Your task to perform on an android device: Do I have any events today? Image 0: 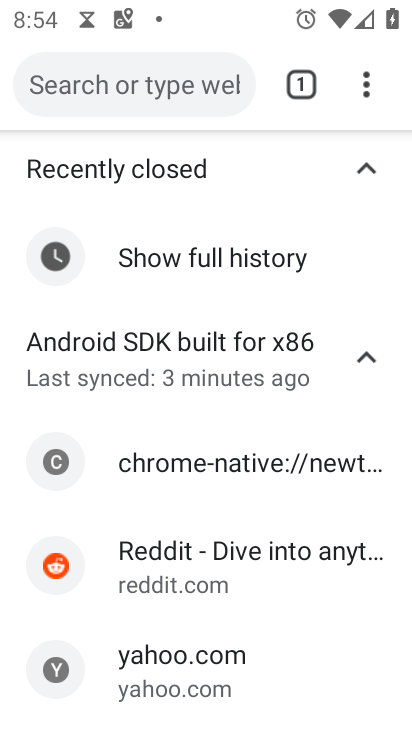
Step 0: press home button
Your task to perform on an android device: Do I have any events today? Image 1: 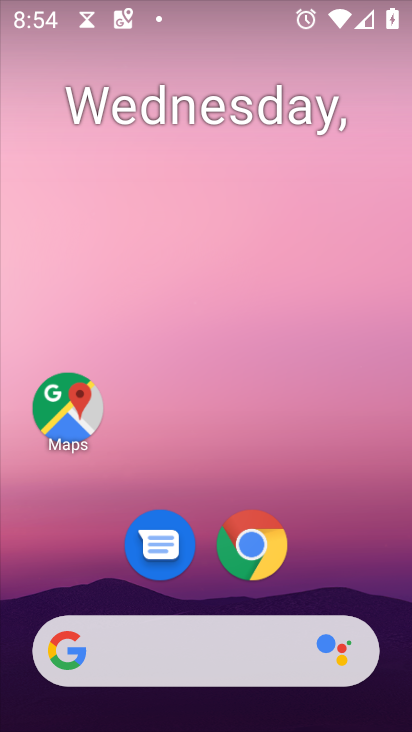
Step 1: drag from (151, 662) to (268, 49)
Your task to perform on an android device: Do I have any events today? Image 2: 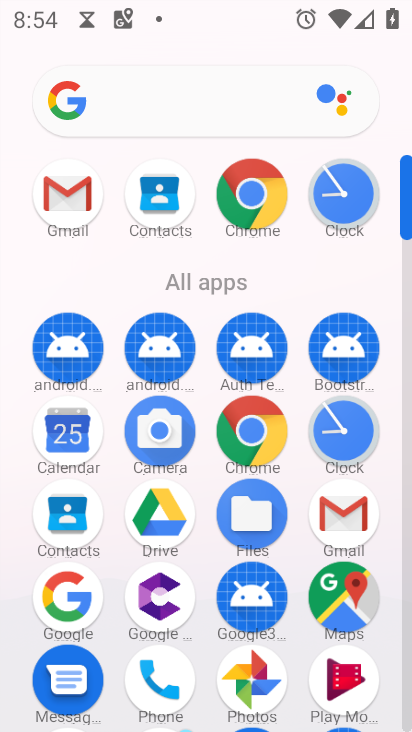
Step 2: click (58, 439)
Your task to perform on an android device: Do I have any events today? Image 3: 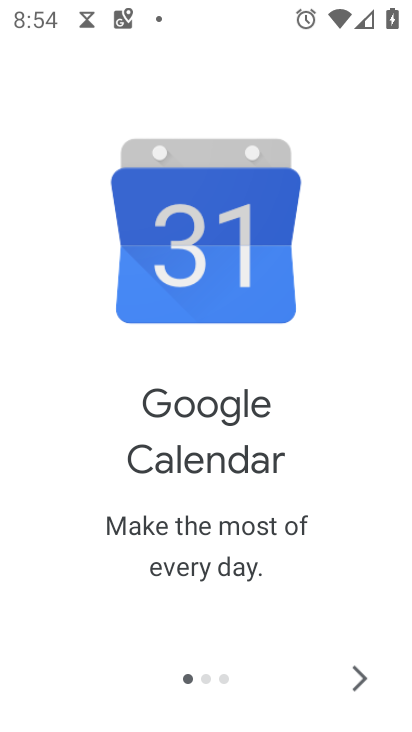
Step 3: click (353, 674)
Your task to perform on an android device: Do I have any events today? Image 4: 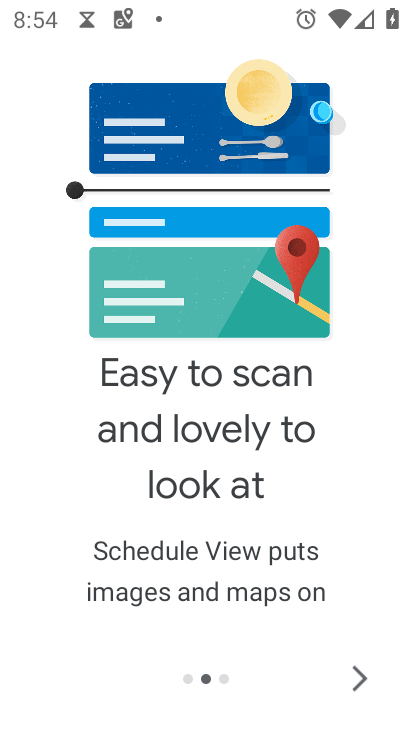
Step 4: click (353, 675)
Your task to perform on an android device: Do I have any events today? Image 5: 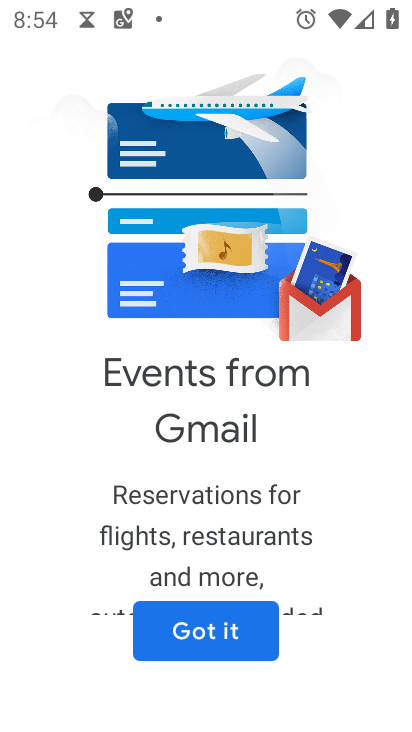
Step 5: click (199, 614)
Your task to perform on an android device: Do I have any events today? Image 6: 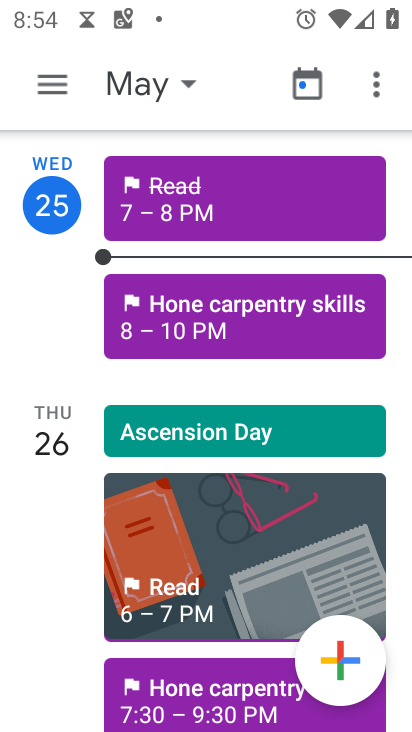
Step 6: click (134, 85)
Your task to perform on an android device: Do I have any events today? Image 7: 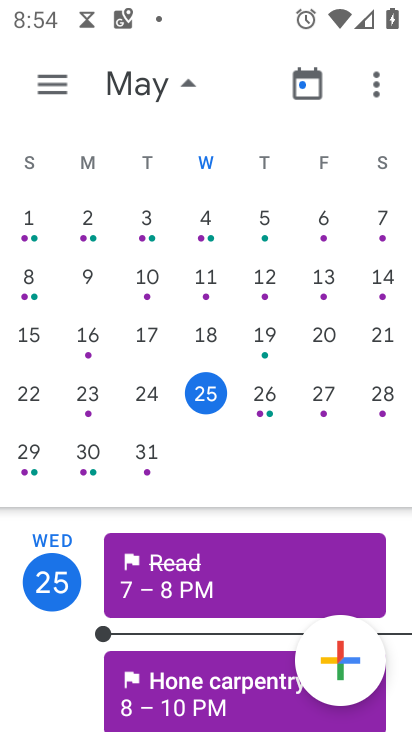
Step 7: click (201, 397)
Your task to perform on an android device: Do I have any events today? Image 8: 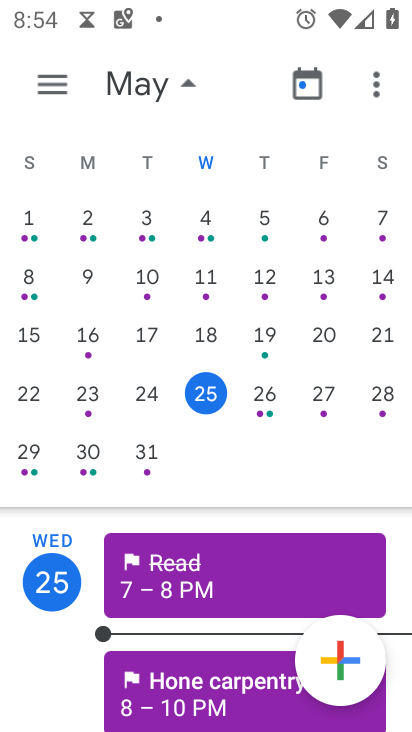
Step 8: click (52, 89)
Your task to perform on an android device: Do I have any events today? Image 9: 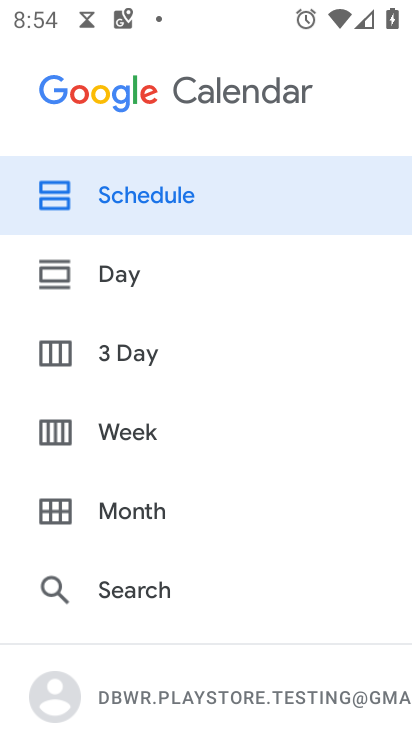
Step 9: click (130, 264)
Your task to perform on an android device: Do I have any events today? Image 10: 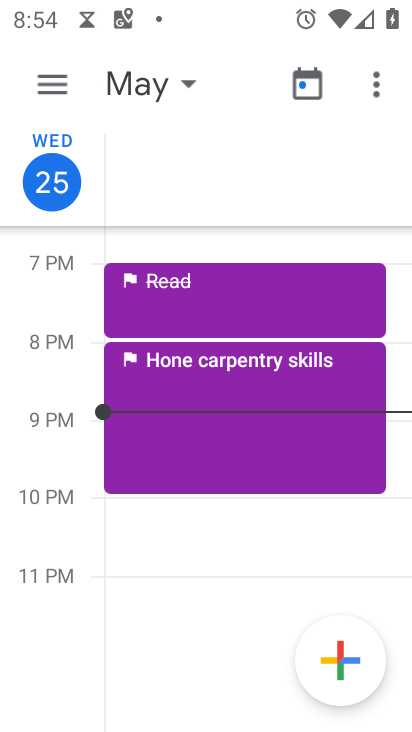
Step 10: click (49, 84)
Your task to perform on an android device: Do I have any events today? Image 11: 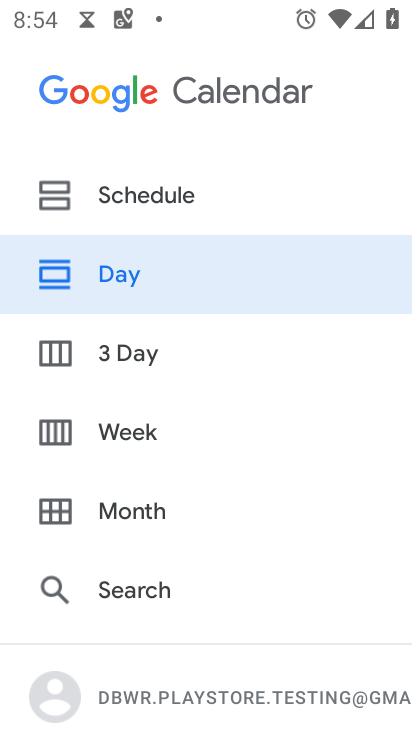
Step 11: click (124, 186)
Your task to perform on an android device: Do I have any events today? Image 12: 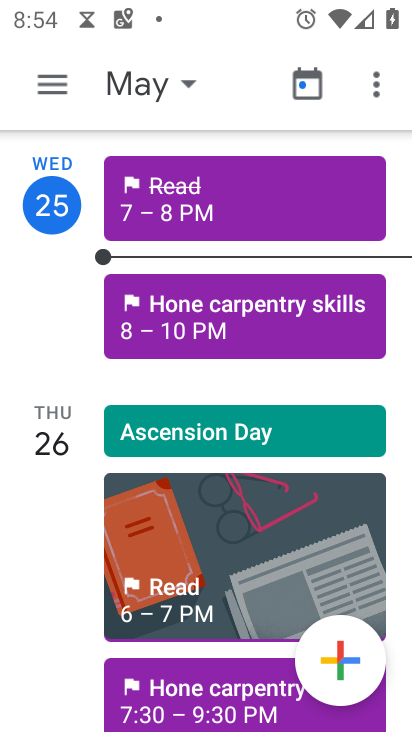
Step 12: click (230, 323)
Your task to perform on an android device: Do I have any events today? Image 13: 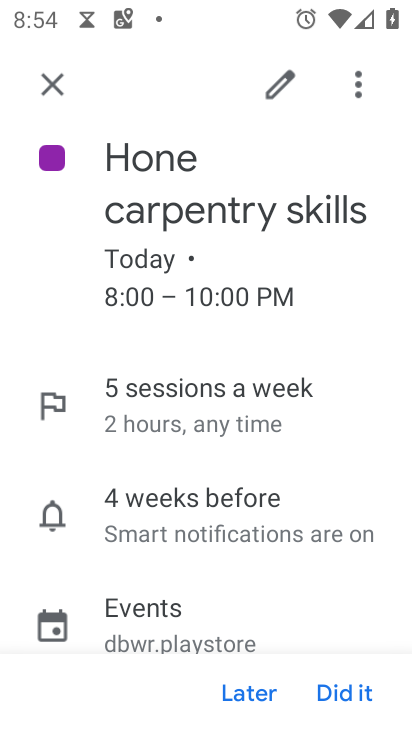
Step 13: task complete